Your task to perform on an android device: change notifications settings Image 0: 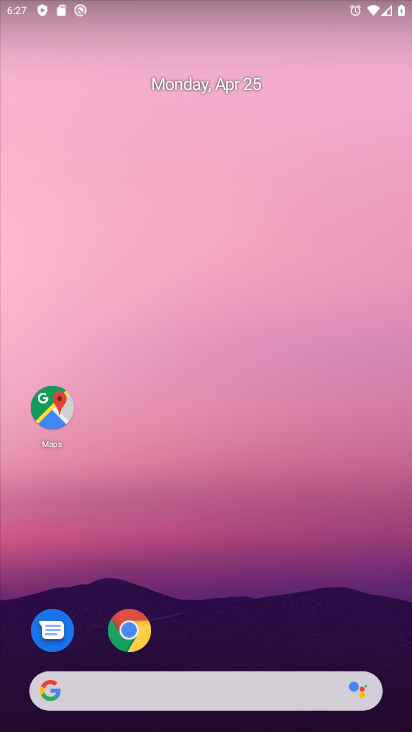
Step 0: drag from (239, 600) to (215, 64)
Your task to perform on an android device: change notifications settings Image 1: 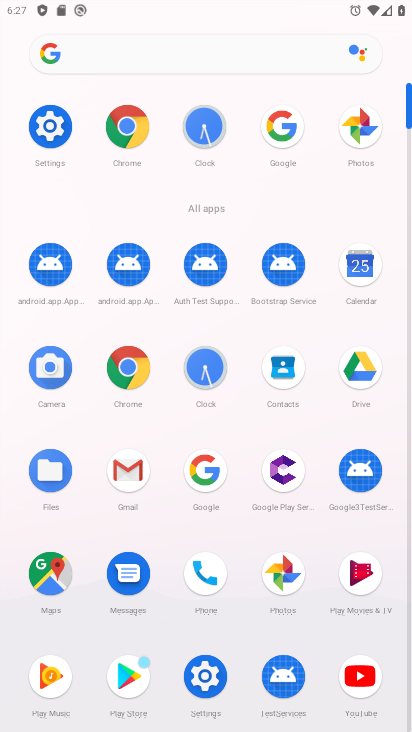
Step 1: click (50, 126)
Your task to perform on an android device: change notifications settings Image 2: 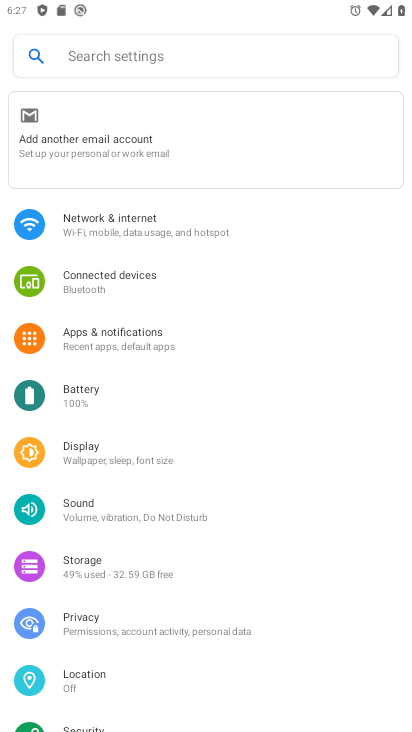
Step 2: click (154, 346)
Your task to perform on an android device: change notifications settings Image 3: 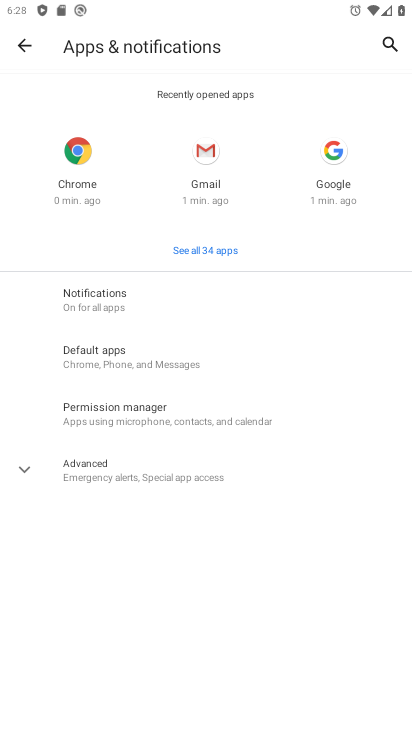
Step 3: click (212, 294)
Your task to perform on an android device: change notifications settings Image 4: 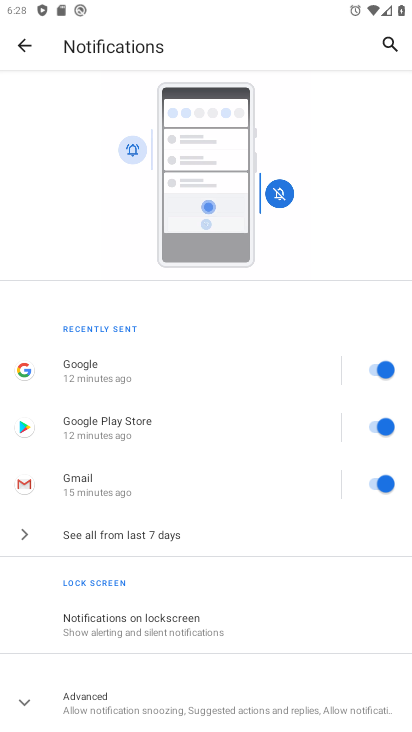
Step 4: click (387, 368)
Your task to perform on an android device: change notifications settings Image 5: 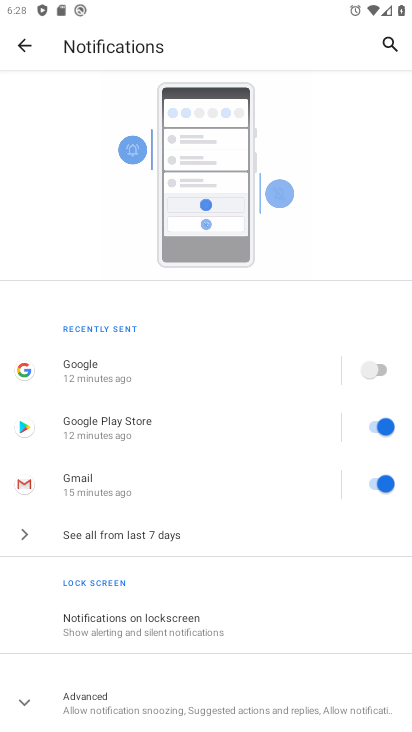
Step 5: click (385, 423)
Your task to perform on an android device: change notifications settings Image 6: 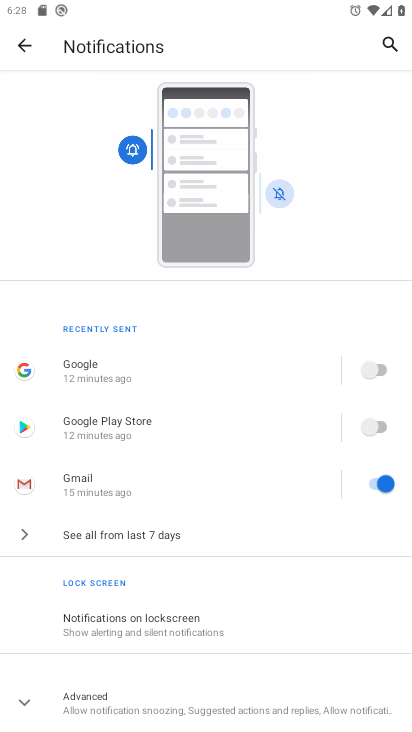
Step 6: click (381, 484)
Your task to perform on an android device: change notifications settings Image 7: 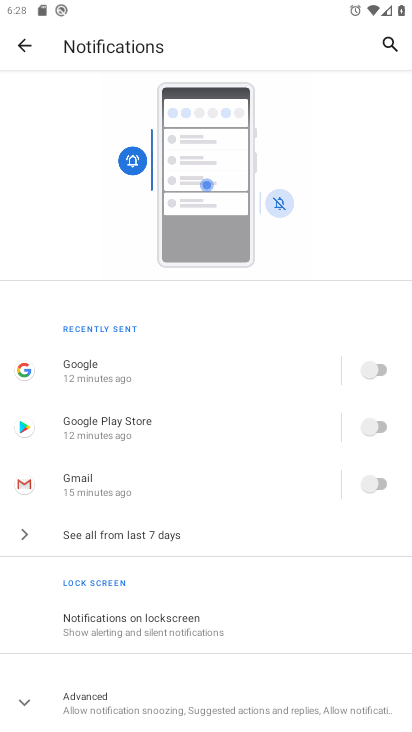
Step 7: task complete